Your task to perform on an android device: toggle airplane mode Image 0: 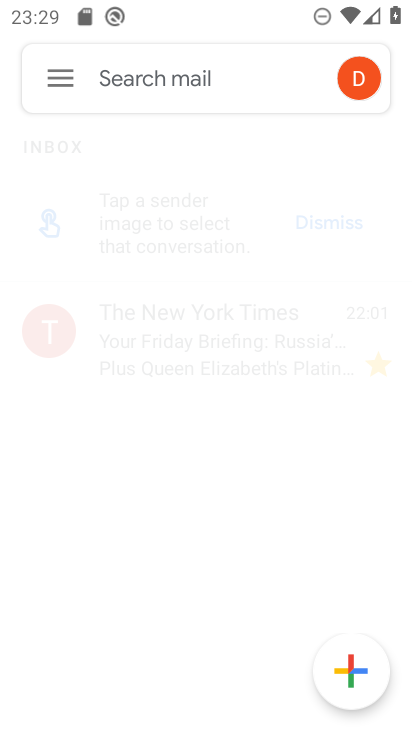
Step 0: click (298, 548)
Your task to perform on an android device: toggle airplane mode Image 1: 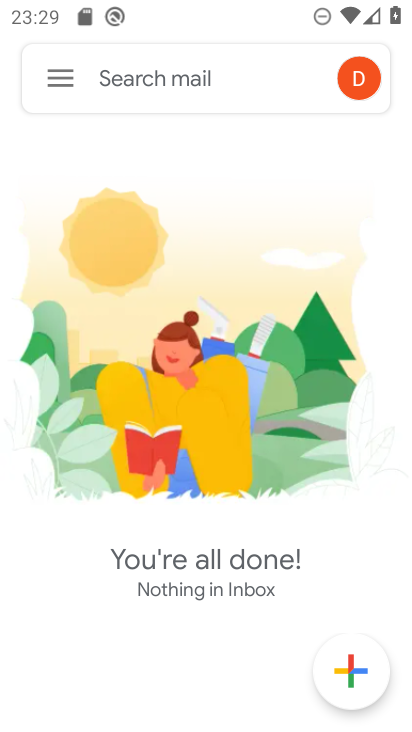
Step 1: press home button
Your task to perform on an android device: toggle airplane mode Image 2: 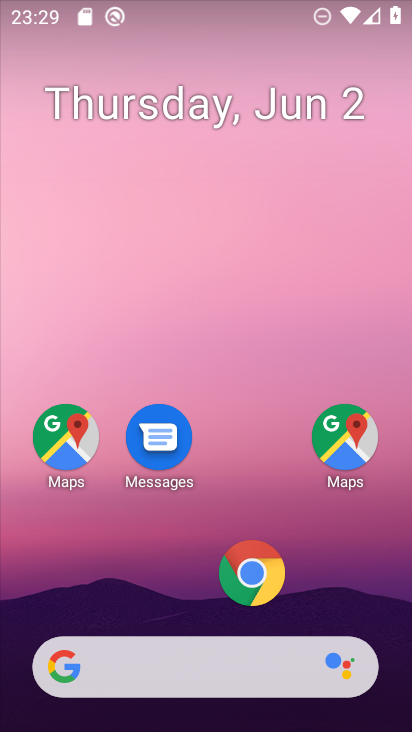
Step 2: drag from (220, 413) to (151, 20)
Your task to perform on an android device: toggle airplane mode Image 3: 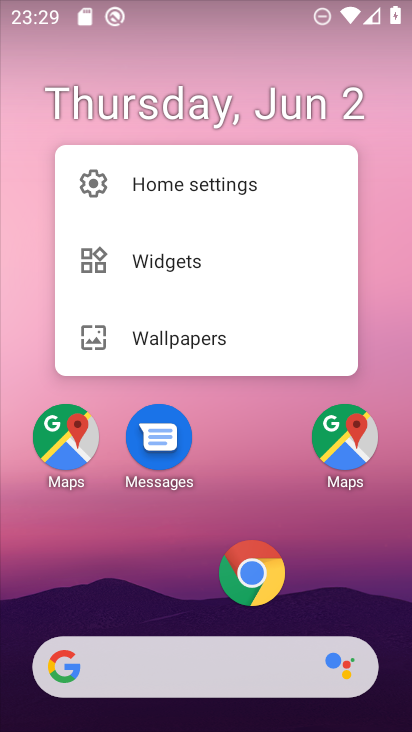
Step 3: press home button
Your task to perform on an android device: toggle airplane mode Image 4: 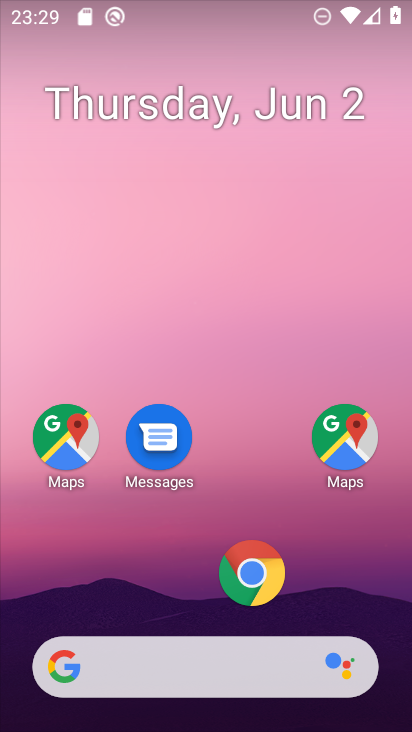
Step 4: drag from (259, 466) to (222, 165)
Your task to perform on an android device: toggle airplane mode Image 5: 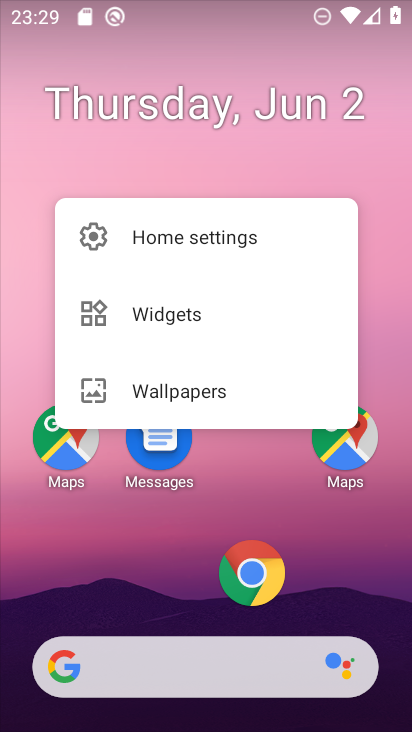
Step 5: press home button
Your task to perform on an android device: toggle airplane mode Image 6: 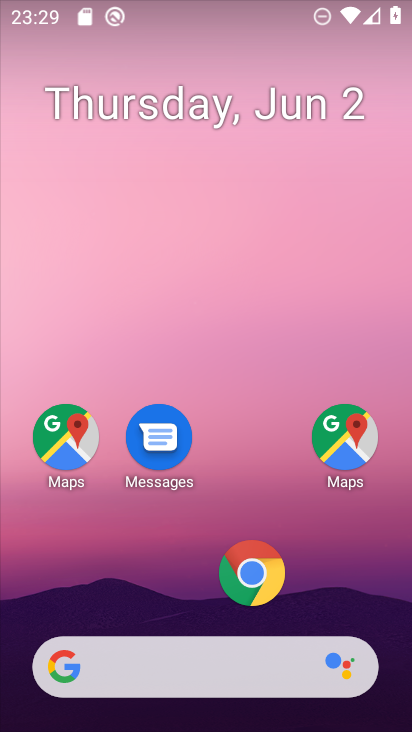
Step 6: drag from (197, 474) to (272, 112)
Your task to perform on an android device: toggle airplane mode Image 7: 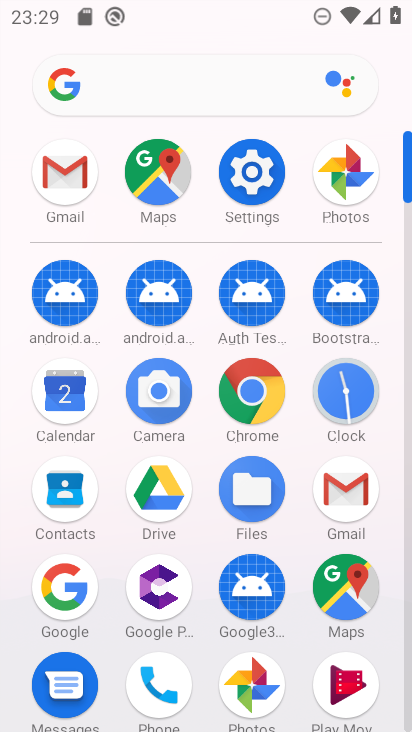
Step 7: click (263, 168)
Your task to perform on an android device: toggle airplane mode Image 8: 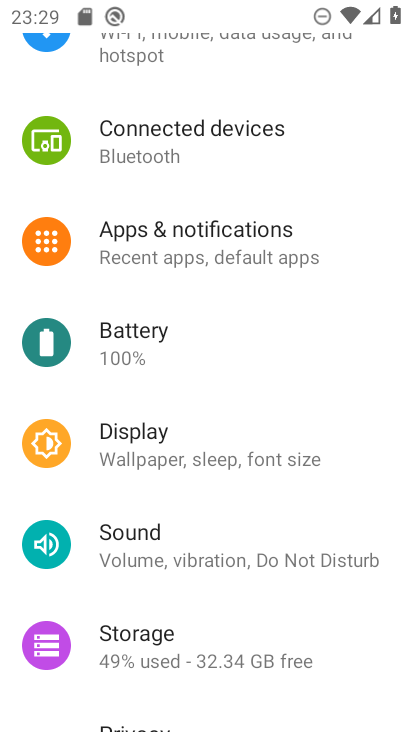
Step 8: drag from (325, 154) to (411, 618)
Your task to perform on an android device: toggle airplane mode Image 9: 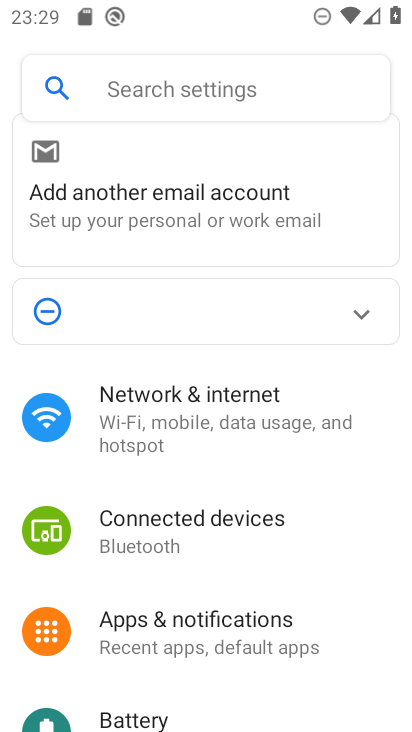
Step 9: click (349, 421)
Your task to perform on an android device: toggle airplane mode Image 10: 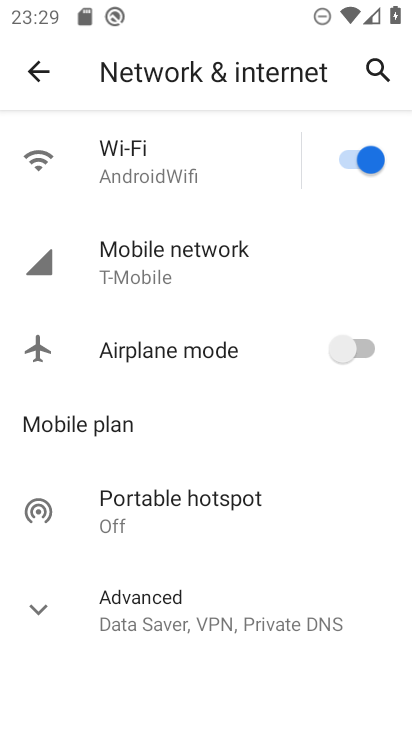
Step 10: click (346, 360)
Your task to perform on an android device: toggle airplane mode Image 11: 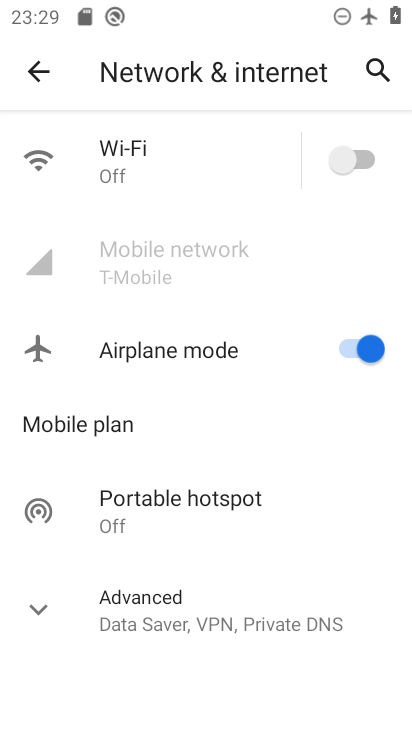
Step 11: task complete